Your task to perform on an android device: refresh tabs in the chrome app Image 0: 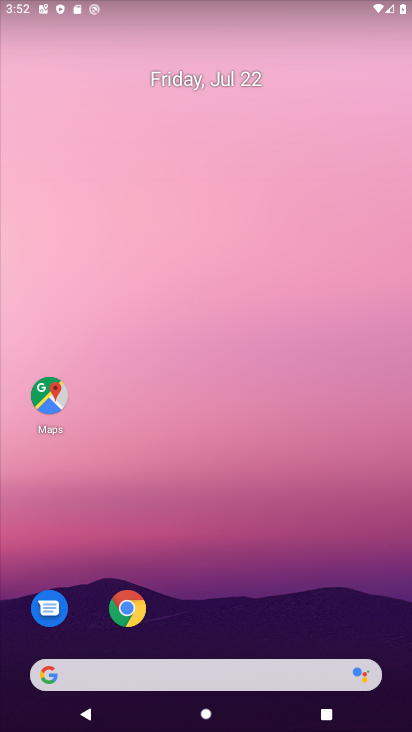
Step 0: drag from (233, 704) to (193, 103)
Your task to perform on an android device: refresh tabs in the chrome app Image 1: 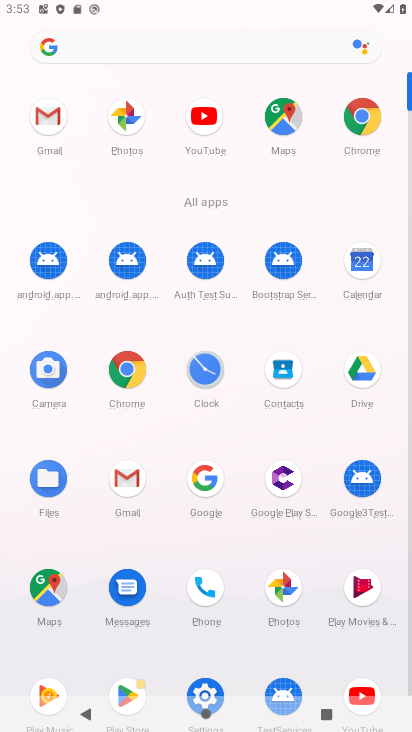
Step 1: click (124, 371)
Your task to perform on an android device: refresh tabs in the chrome app Image 2: 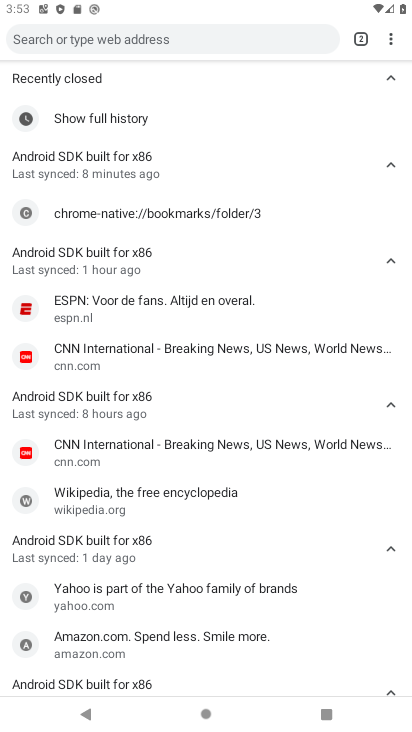
Step 2: click (391, 43)
Your task to perform on an android device: refresh tabs in the chrome app Image 3: 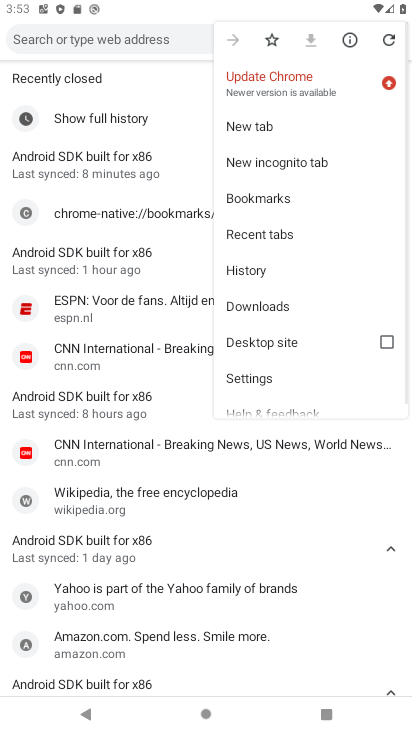
Step 3: click (385, 38)
Your task to perform on an android device: refresh tabs in the chrome app Image 4: 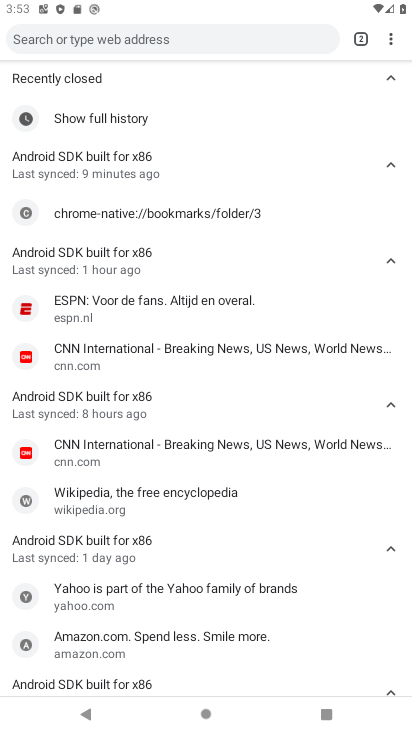
Step 4: task complete